Your task to perform on an android device: turn pop-ups on in chrome Image 0: 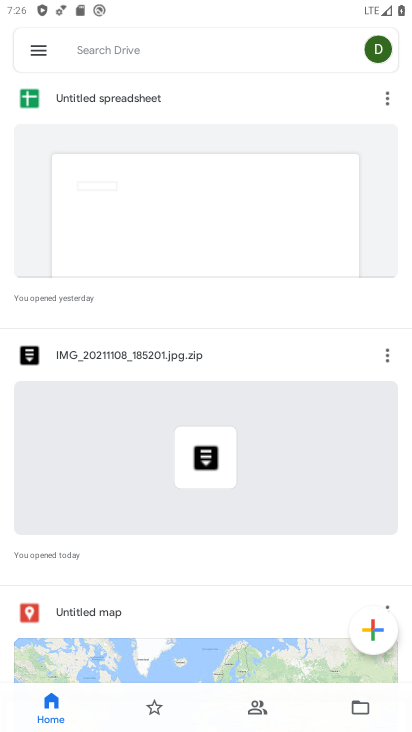
Step 0: press back button
Your task to perform on an android device: turn pop-ups on in chrome Image 1: 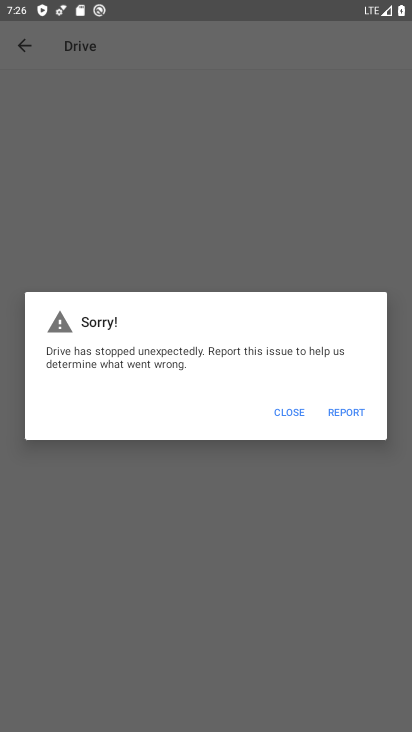
Step 1: press home button
Your task to perform on an android device: turn pop-ups on in chrome Image 2: 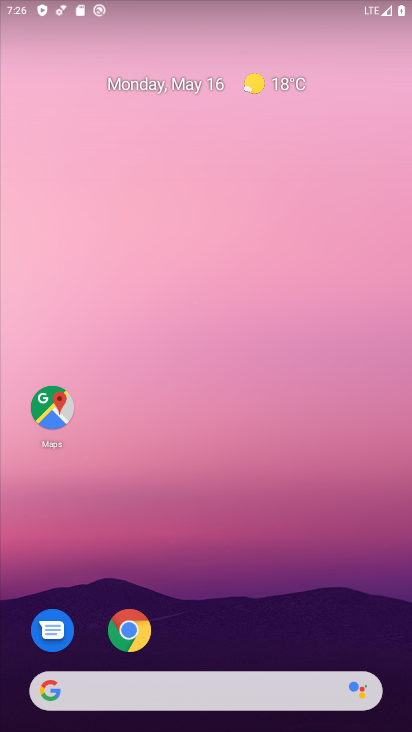
Step 2: click (128, 632)
Your task to perform on an android device: turn pop-ups on in chrome Image 3: 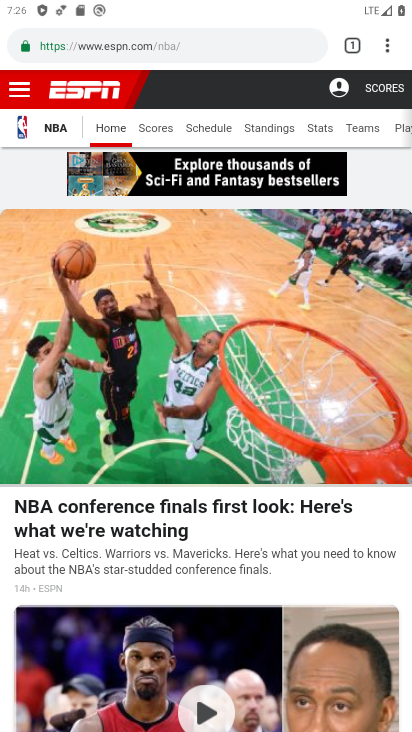
Step 3: click (388, 45)
Your task to perform on an android device: turn pop-ups on in chrome Image 4: 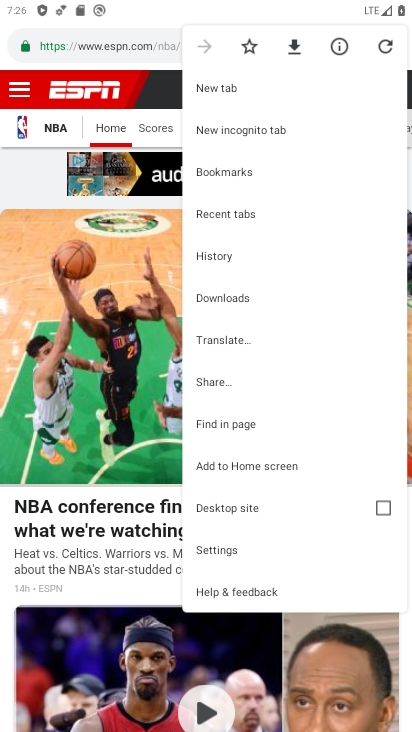
Step 4: click (228, 545)
Your task to perform on an android device: turn pop-ups on in chrome Image 5: 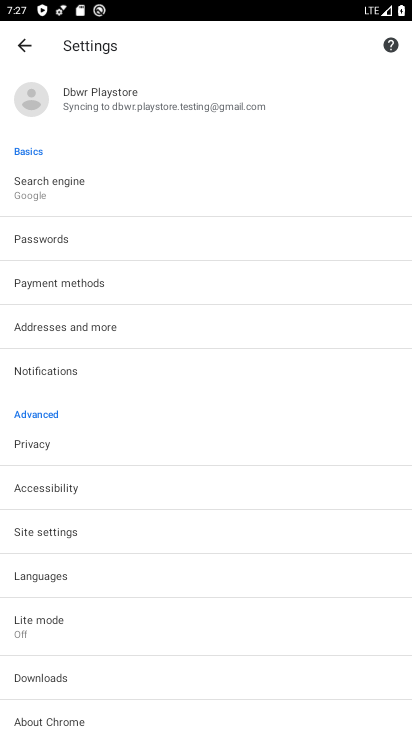
Step 5: click (64, 528)
Your task to perform on an android device: turn pop-ups on in chrome Image 6: 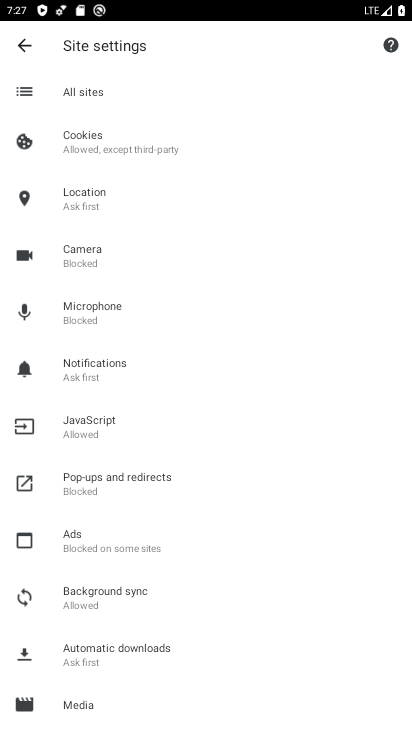
Step 6: click (104, 481)
Your task to perform on an android device: turn pop-ups on in chrome Image 7: 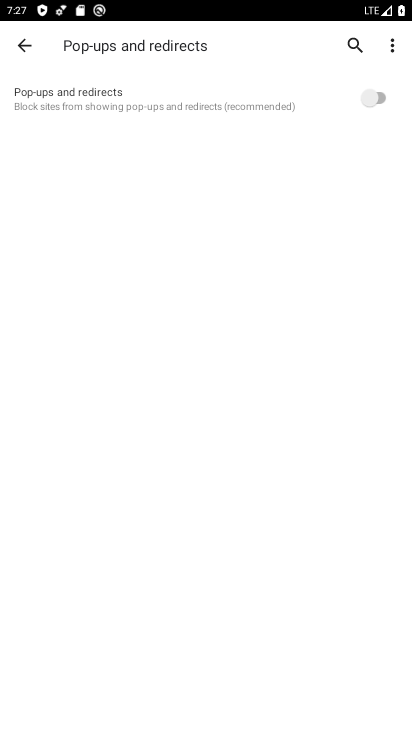
Step 7: click (376, 102)
Your task to perform on an android device: turn pop-ups on in chrome Image 8: 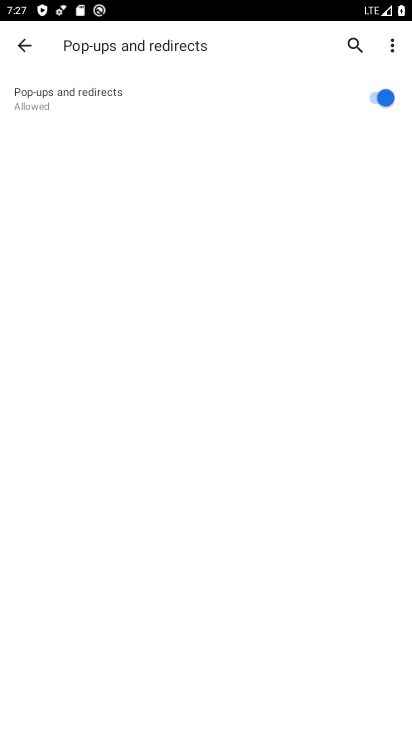
Step 8: task complete